Your task to perform on an android device: Go to sound settings Image 0: 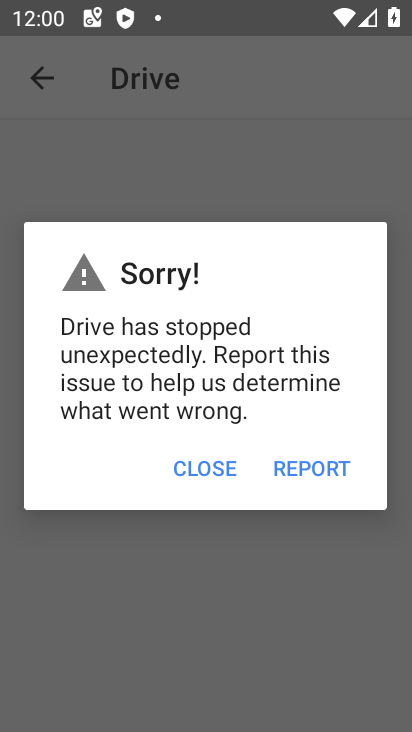
Step 0: press home button
Your task to perform on an android device: Go to sound settings Image 1: 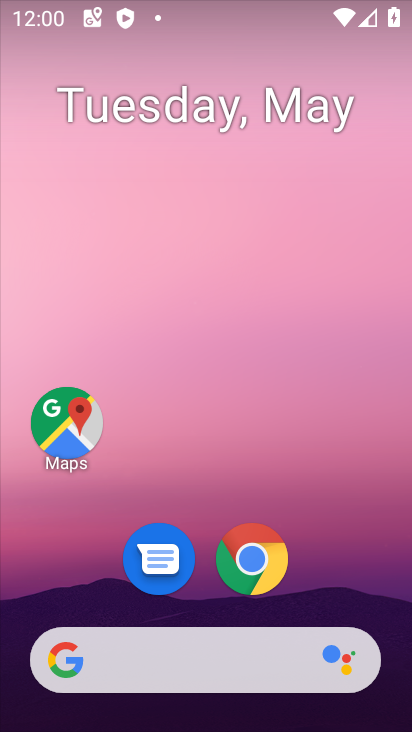
Step 1: drag from (345, 573) to (347, 18)
Your task to perform on an android device: Go to sound settings Image 2: 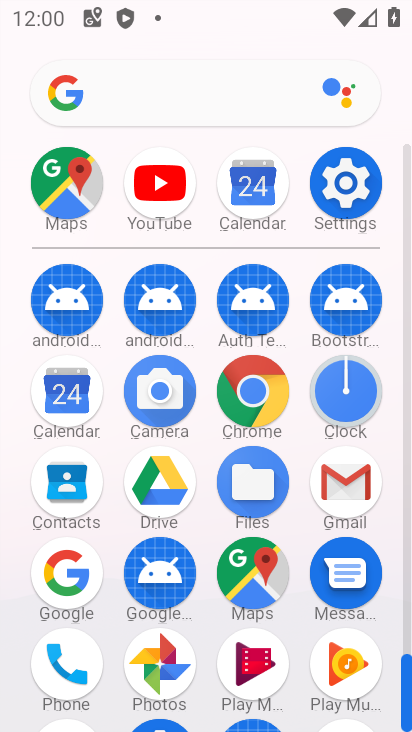
Step 2: click (326, 163)
Your task to perform on an android device: Go to sound settings Image 3: 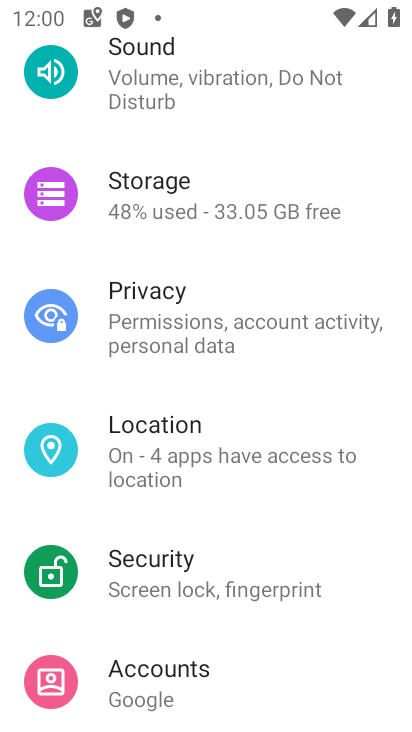
Step 3: click (265, 91)
Your task to perform on an android device: Go to sound settings Image 4: 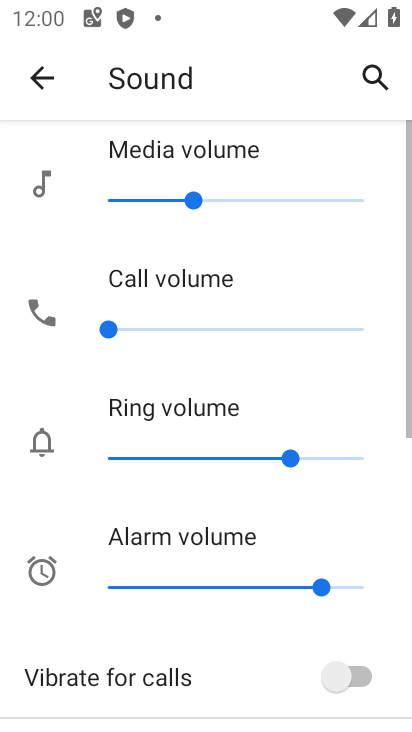
Step 4: task complete